Your task to perform on an android device: Show me popular videos on Youtube Image 0: 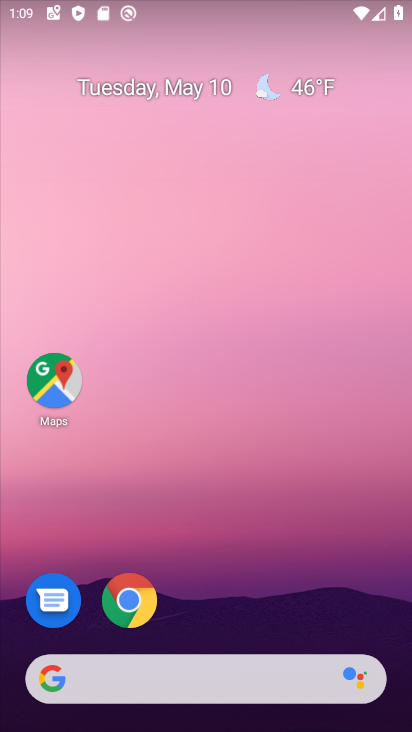
Step 0: press home button
Your task to perform on an android device: Show me popular videos on Youtube Image 1: 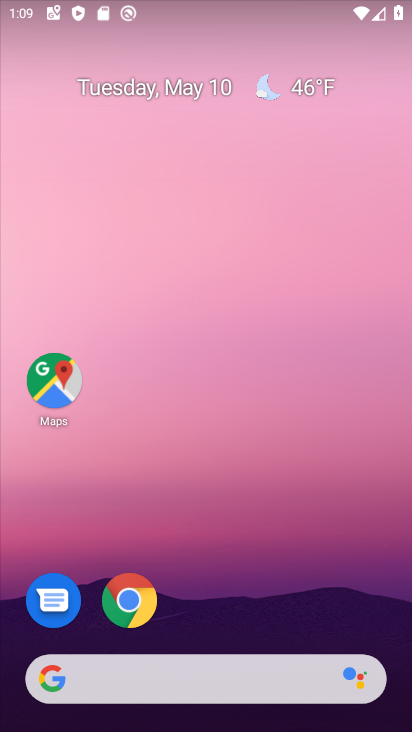
Step 1: drag from (184, 680) to (317, 120)
Your task to perform on an android device: Show me popular videos on Youtube Image 2: 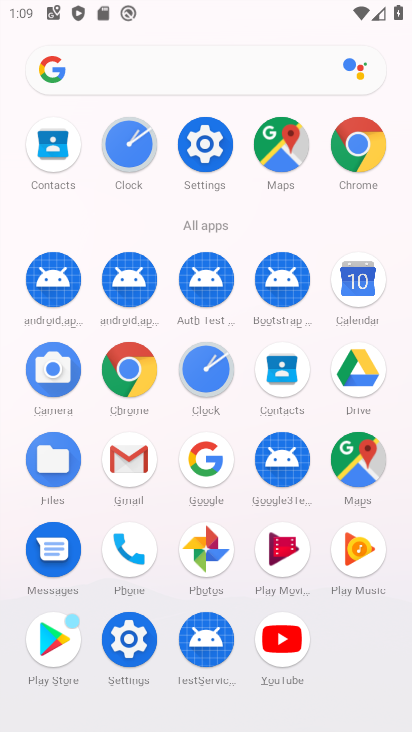
Step 2: click (280, 633)
Your task to perform on an android device: Show me popular videos on Youtube Image 3: 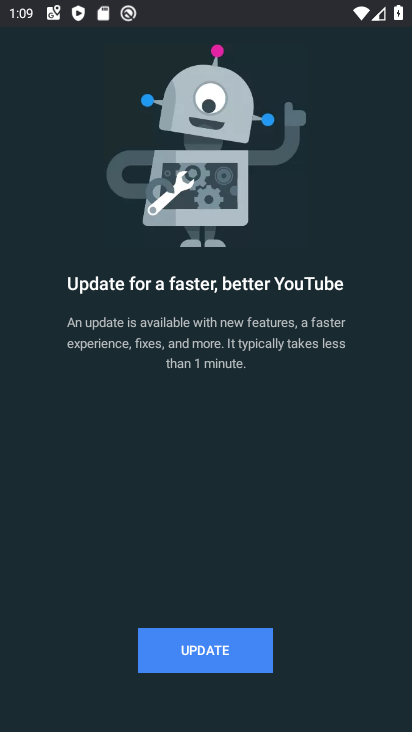
Step 3: click (229, 648)
Your task to perform on an android device: Show me popular videos on Youtube Image 4: 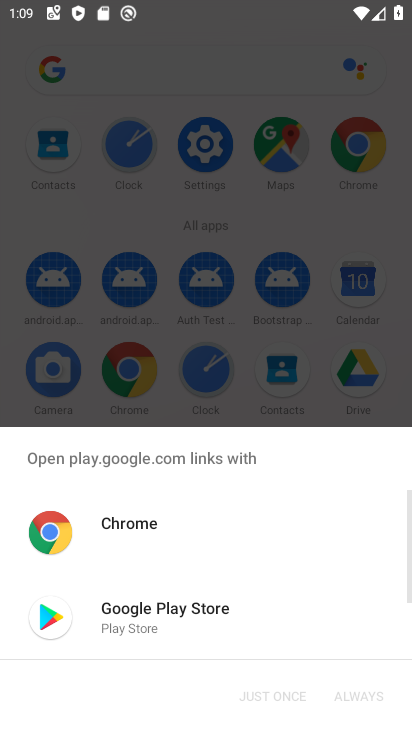
Step 4: click (148, 620)
Your task to perform on an android device: Show me popular videos on Youtube Image 5: 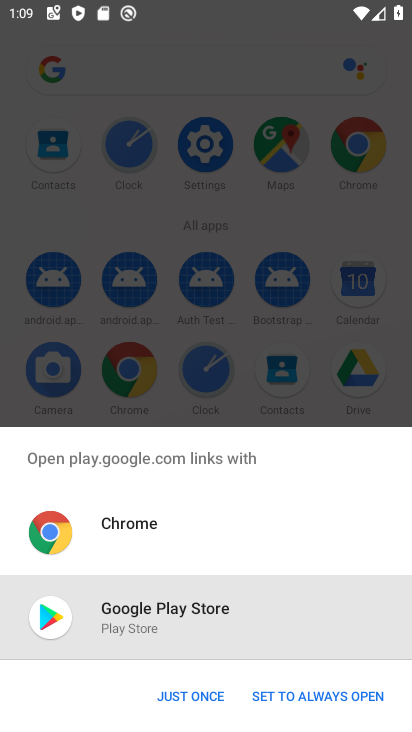
Step 5: click (179, 702)
Your task to perform on an android device: Show me popular videos on Youtube Image 6: 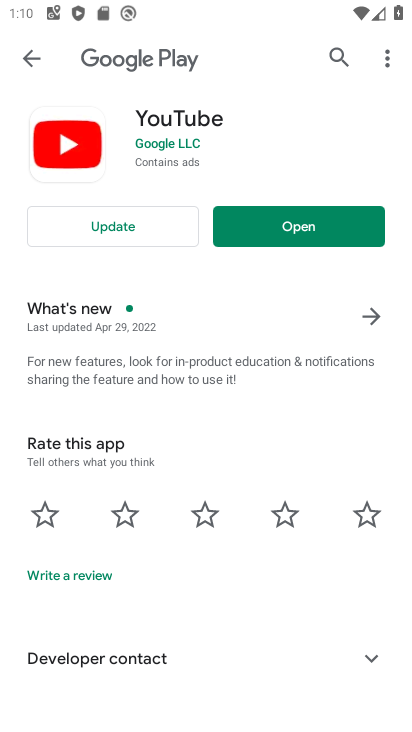
Step 6: click (150, 224)
Your task to perform on an android device: Show me popular videos on Youtube Image 7: 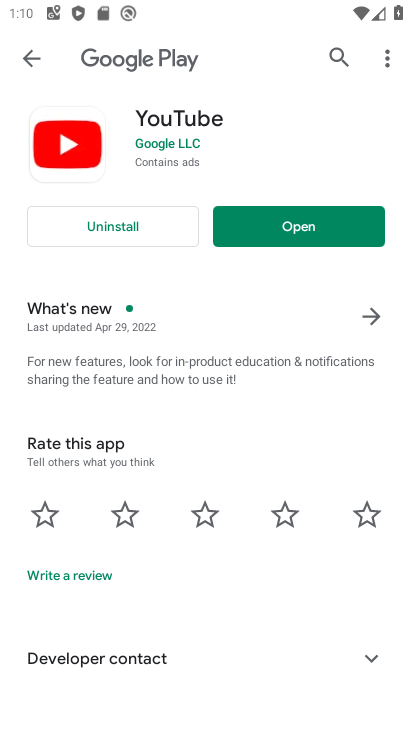
Step 7: click (261, 215)
Your task to perform on an android device: Show me popular videos on Youtube Image 8: 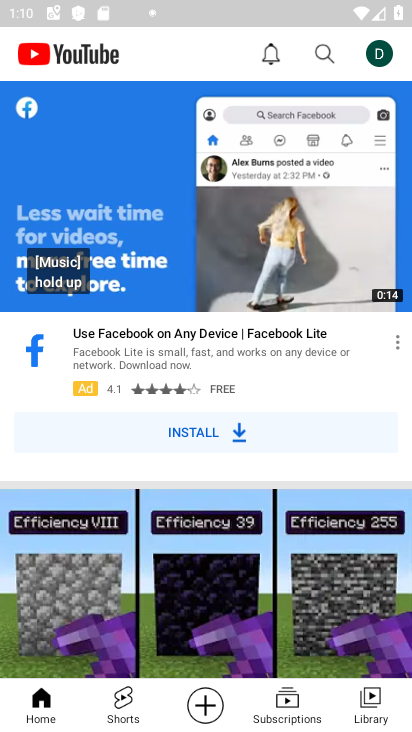
Step 8: task complete